Your task to perform on an android device: read, delete, or share a saved page in the chrome app Image 0: 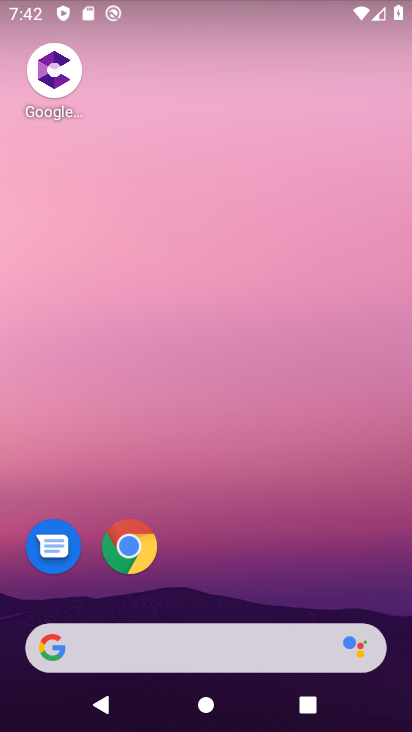
Step 0: click (127, 544)
Your task to perform on an android device: read, delete, or share a saved page in the chrome app Image 1: 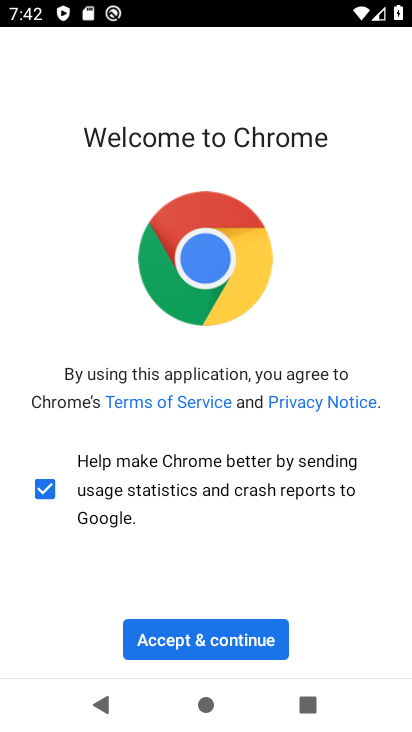
Step 1: click (218, 638)
Your task to perform on an android device: read, delete, or share a saved page in the chrome app Image 2: 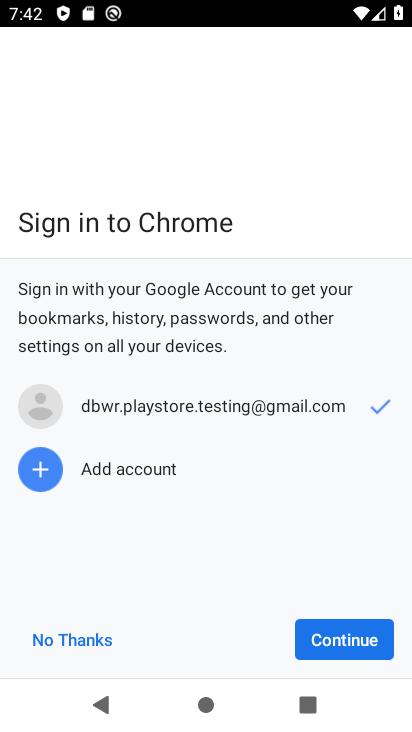
Step 2: click (331, 636)
Your task to perform on an android device: read, delete, or share a saved page in the chrome app Image 3: 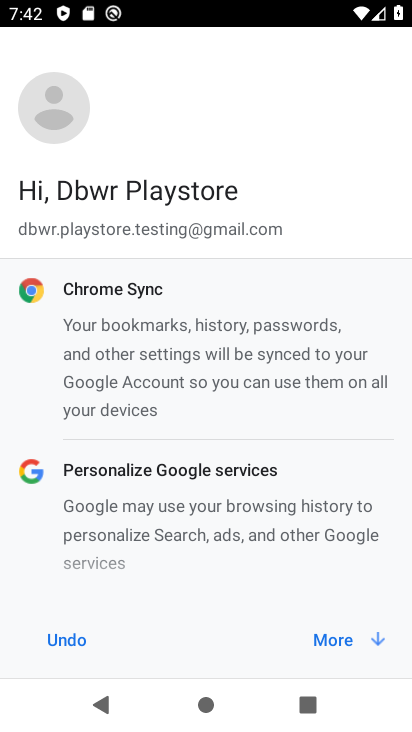
Step 3: click (331, 641)
Your task to perform on an android device: read, delete, or share a saved page in the chrome app Image 4: 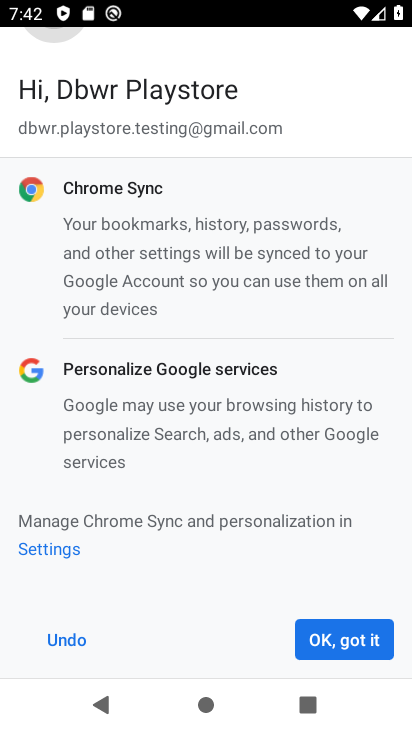
Step 4: click (331, 641)
Your task to perform on an android device: read, delete, or share a saved page in the chrome app Image 5: 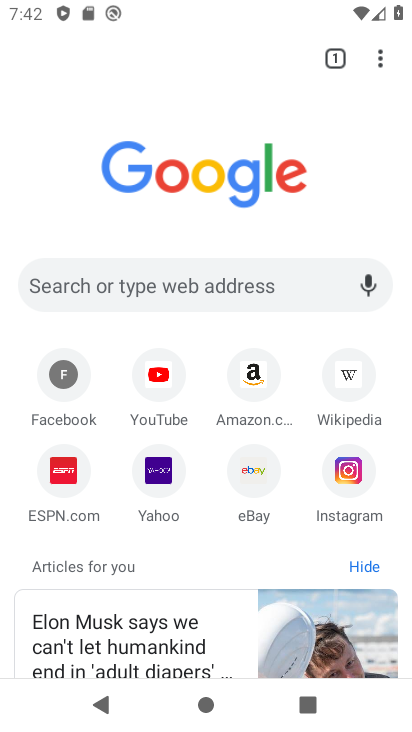
Step 5: click (379, 61)
Your task to perform on an android device: read, delete, or share a saved page in the chrome app Image 6: 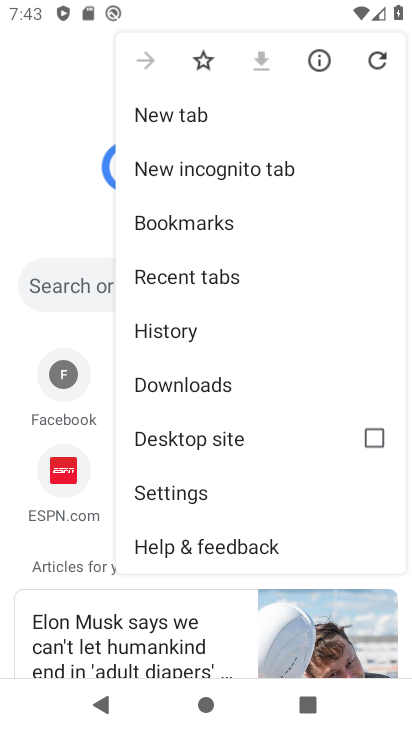
Step 6: click (197, 383)
Your task to perform on an android device: read, delete, or share a saved page in the chrome app Image 7: 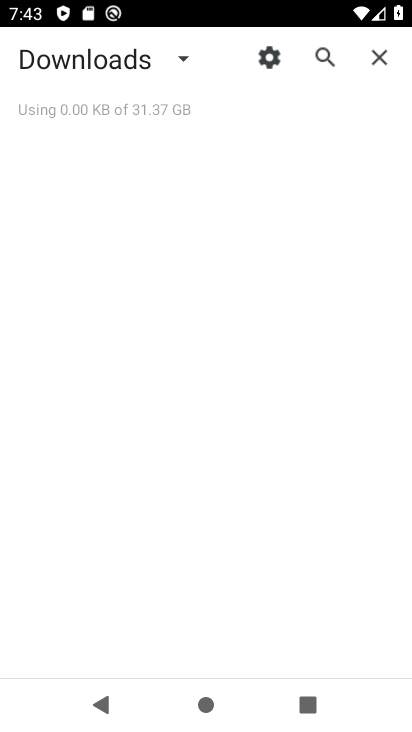
Step 7: task complete